Your task to perform on an android device: turn on airplane mode Image 0: 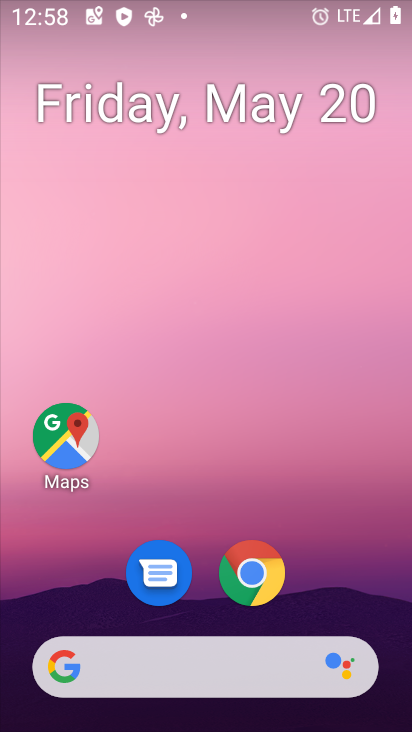
Step 0: drag from (203, 574) to (255, 169)
Your task to perform on an android device: turn on airplane mode Image 1: 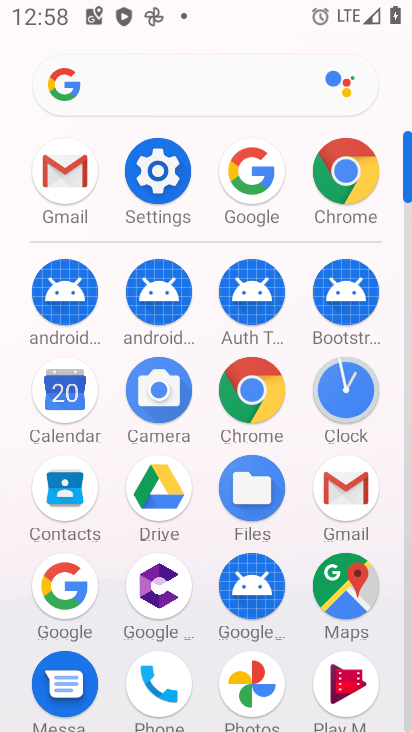
Step 1: click (163, 169)
Your task to perform on an android device: turn on airplane mode Image 2: 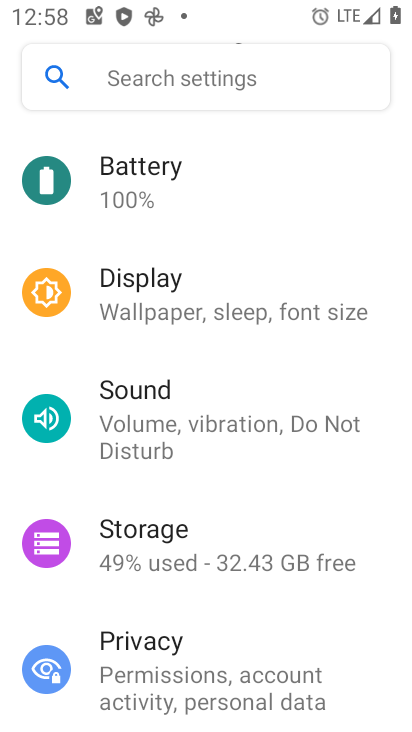
Step 2: drag from (207, 169) to (358, 591)
Your task to perform on an android device: turn on airplane mode Image 3: 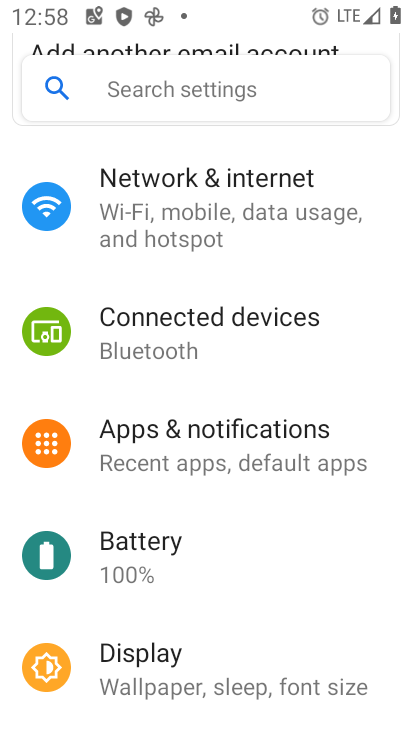
Step 3: click (258, 187)
Your task to perform on an android device: turn on airplane mode Image 4: 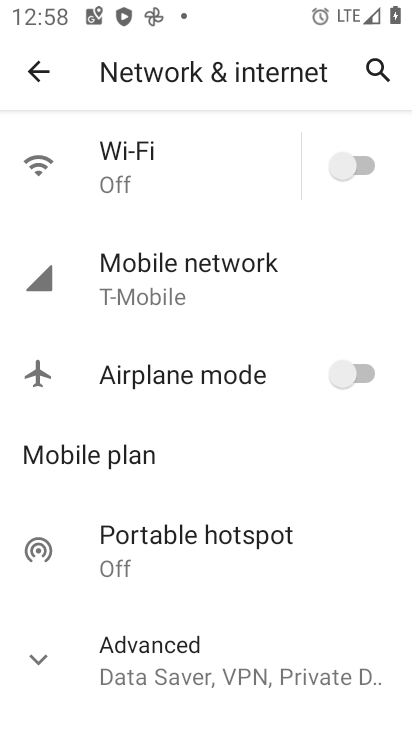
Step 4: click (347, 373)
Your task to perform on an android device: turn on airplane mode Image 5: 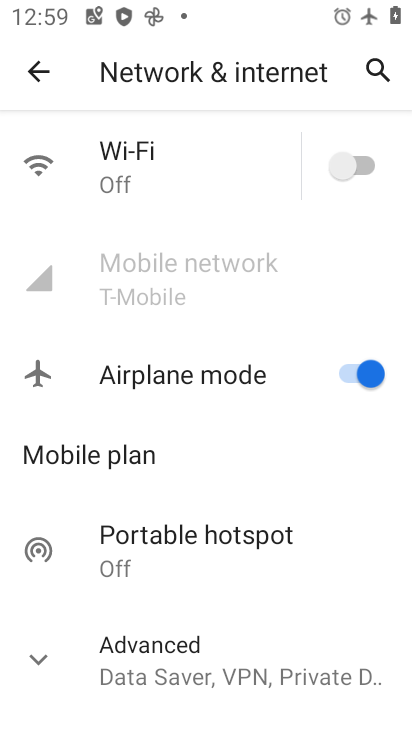
Step 5: task complete